Your task to perform on an android device: toggle location history Image 0: 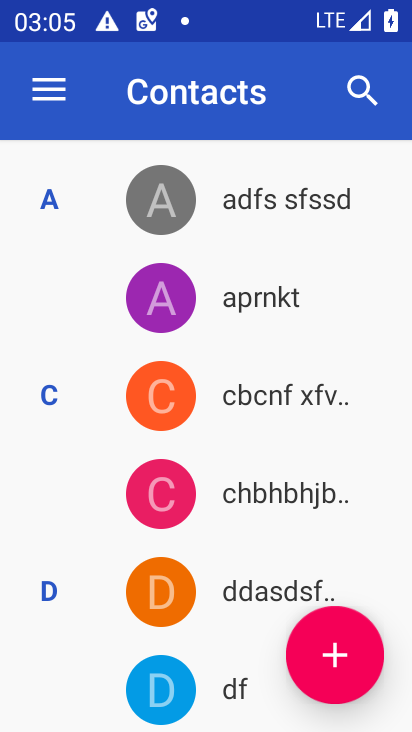
Step 0: press home button
Your task to perform on an android device: toggle location history Image 1: 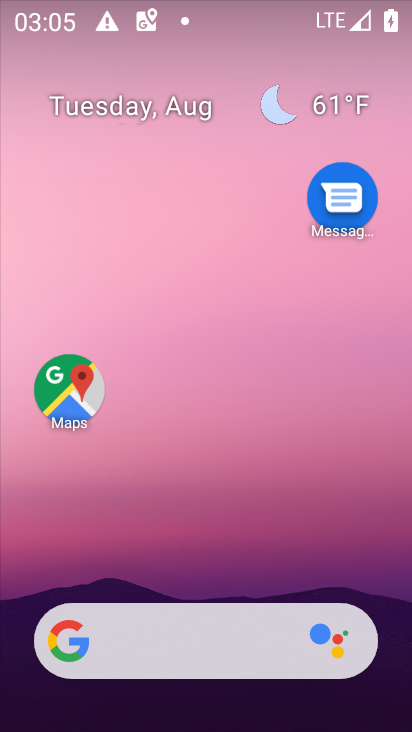
Step 1: drag from (235, 576) to (217, 129)
Your task to perform on an android device: toggle location history Image 2: 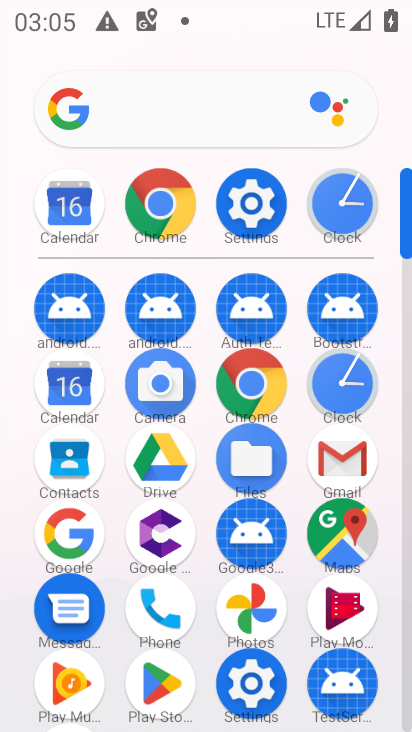
Step 2: click (236, 182)
Your task to perform on an android device: toggle location history Image 3: 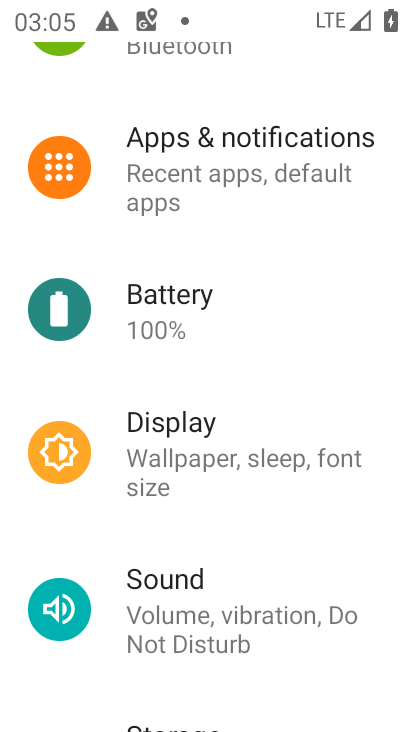
Step 3: drag from (259, 625) to (255, 198)
Your task to perform on an android device: toggle location history Image 4: 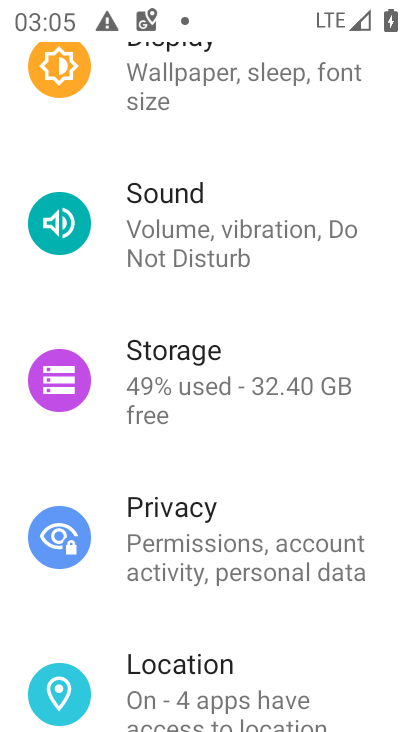
Step 4: click (229, 692)
Your task to perform on an android device: toggle location history Image 5: 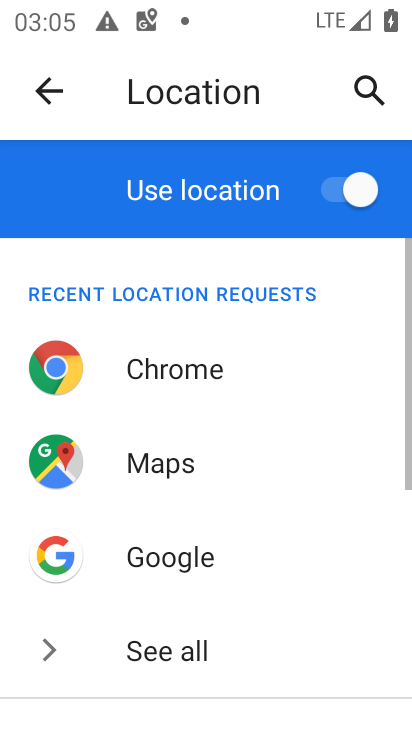
Step 5: task complete